Your task to perform on an android device: choose inbox layout in the gmail app Image 0: 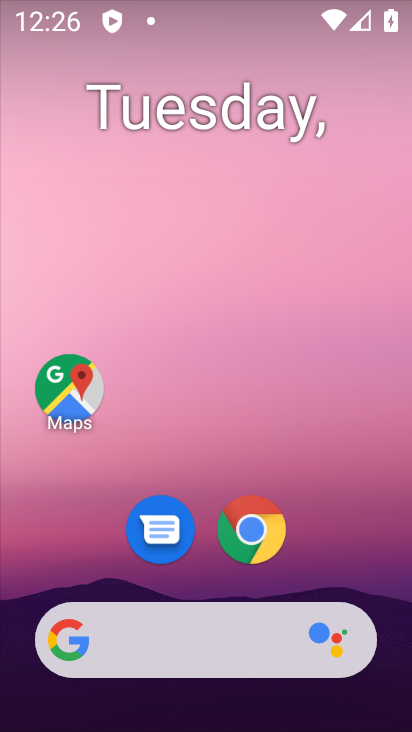
Step 0: drag from (335, 504) to (310, 303)
Your task to perform on an android device: choose inbox layout in the gmail app Image 1: 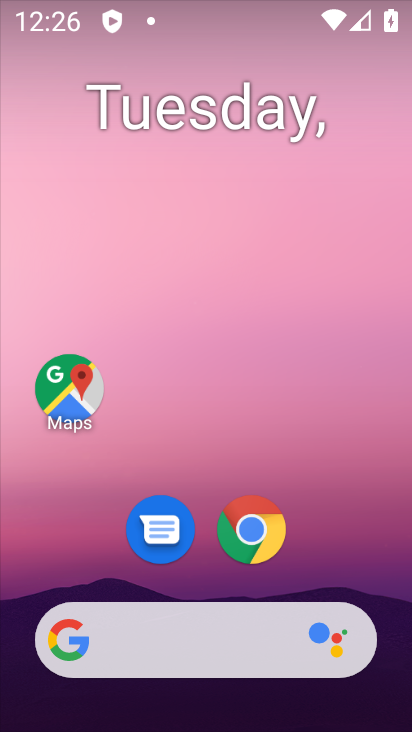
Step 1: drag from (321, 574) to (307, 158)
Your task to perform on an android device: choose inbox layout in the gmail app Image 2: 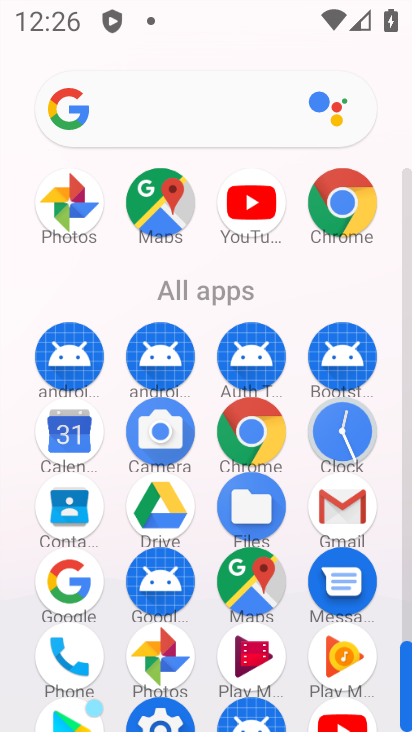
Step 2: click (332, 506)
Your task to perform on an android device: choose inbox layout in the gmail app Image 3: 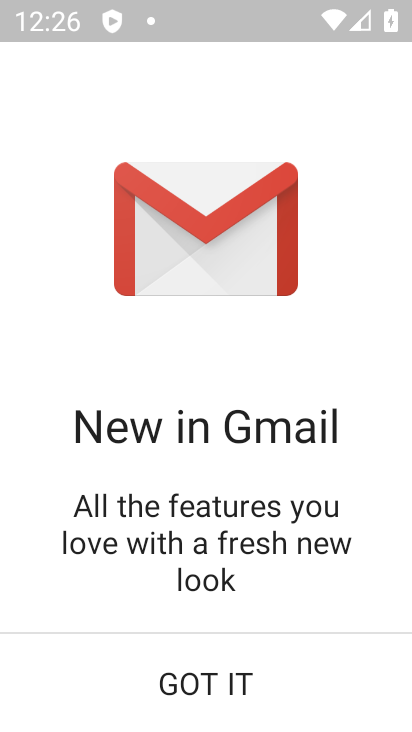
Step 3: click (197, 660)
Your task to perform on an android device: choose inbox layout in the gmail app Image 4: 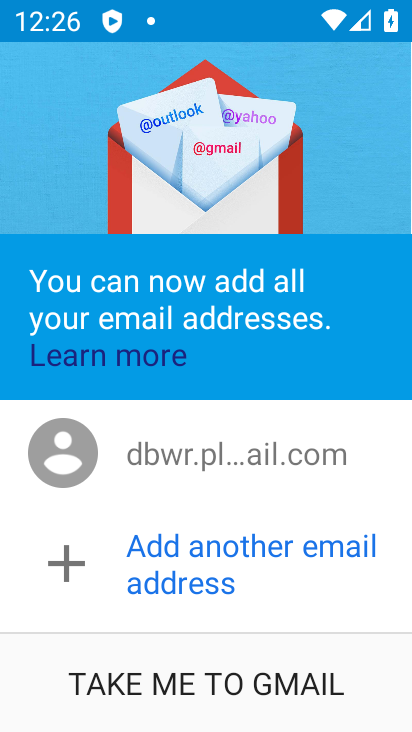
Step 4: click (203, 688)
Your task to perform on an android device: choose inbox layout in the gmail app Image 5: 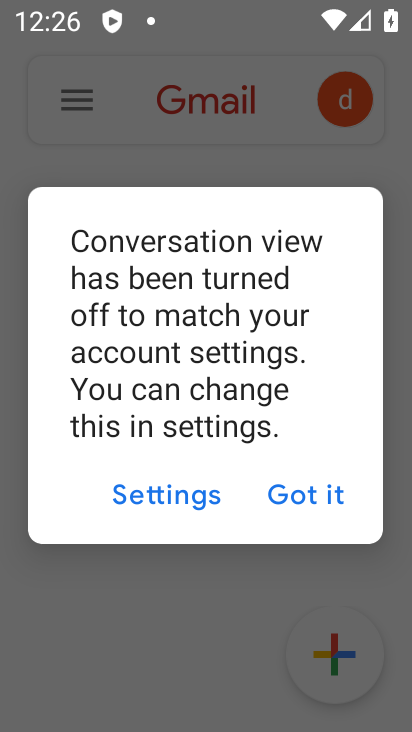
Step 5: click (309, 484)
Your task to perform on an android device: choose inbox layout in the gmail app Image 6: 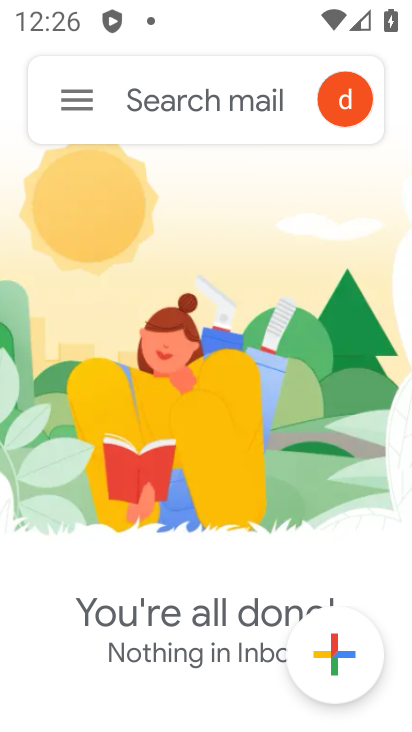
Step 6: click (60, 103)
Your task to perform on an android device: choose inbox layout in the gmail app Image 7: 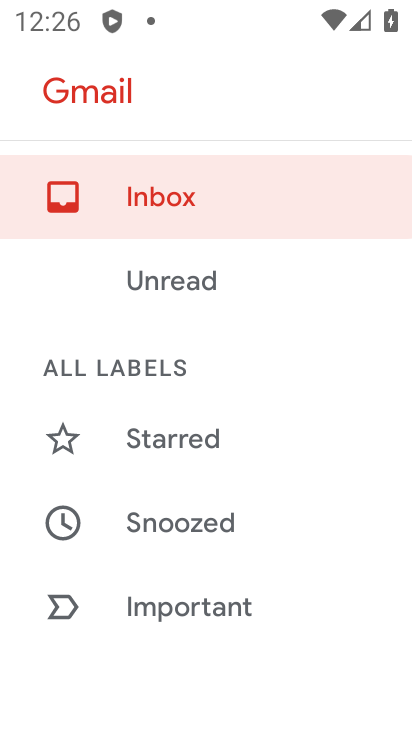
Step 7: drag from (181, 611) to (191, 219)
Your task to perform on an android device: choose inbox layout in the gmail app Image 8: 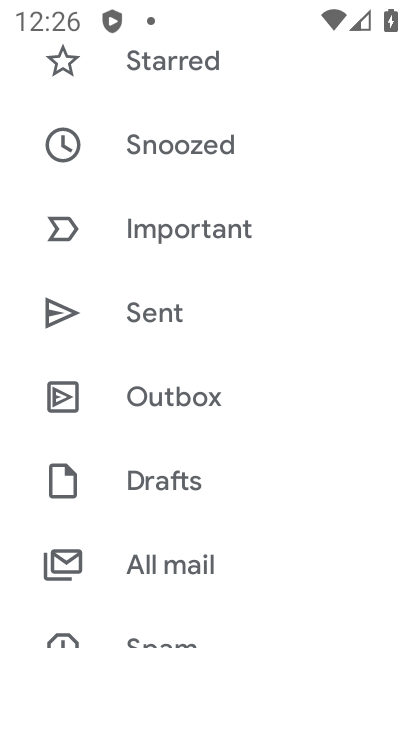
Step 8: drag from (222, 517) to (228, 229)
Your task to perform on an android device: choose inbox layout in the gmail app Image 9: 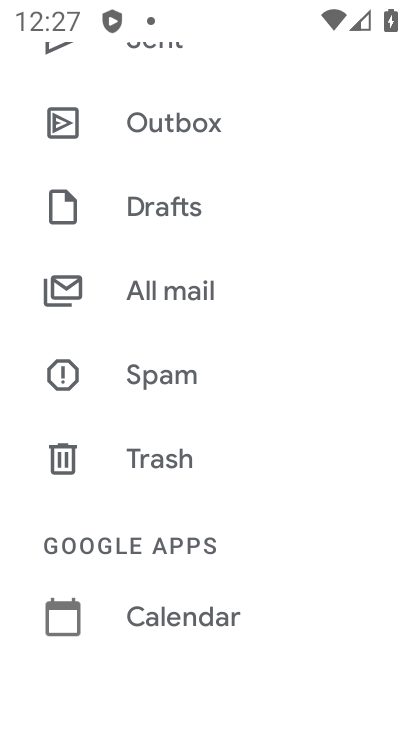
Step 9: drag from (181, 175) to (176, 555)
Your task to perform on an android device: choose inbox layout in the gmail app Image 10: 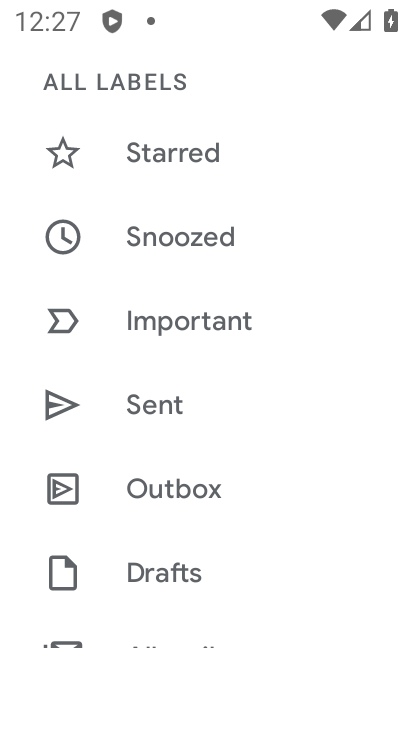
Step 10: drag from (160, 128) to (200, 310)
Your task to perform on an android device: choose inbox layout in the gmail app Image 11: 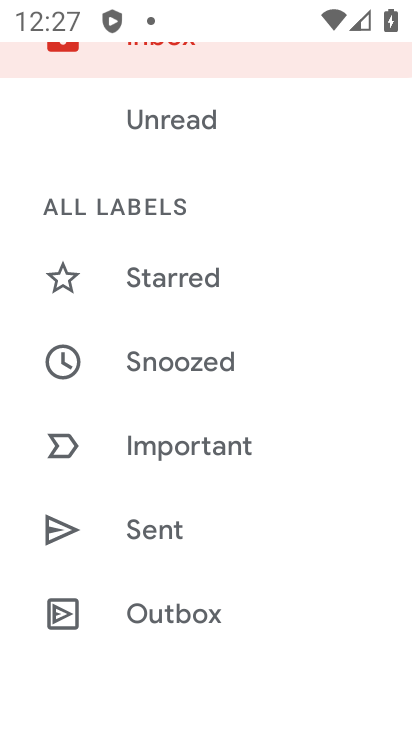
Step 11: drag from (228, 87) to (233, 287)
Your task to perform on an android device: choose inbox layout in the gmail app Image 12: 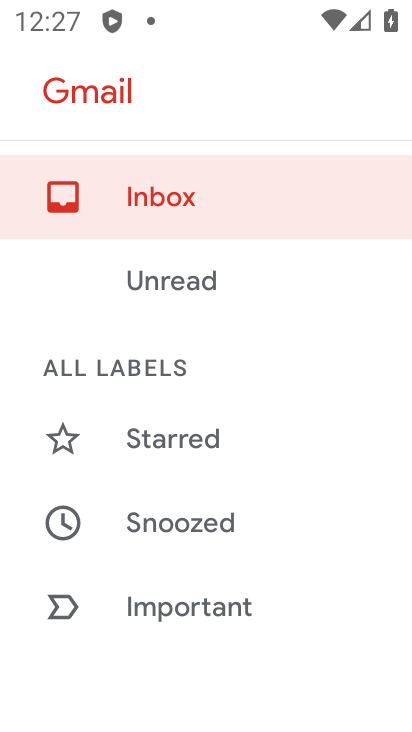
Step 12: click (239, 195)
Your task to perform on an android device: choose inbox layout in the gmail app Image 13: 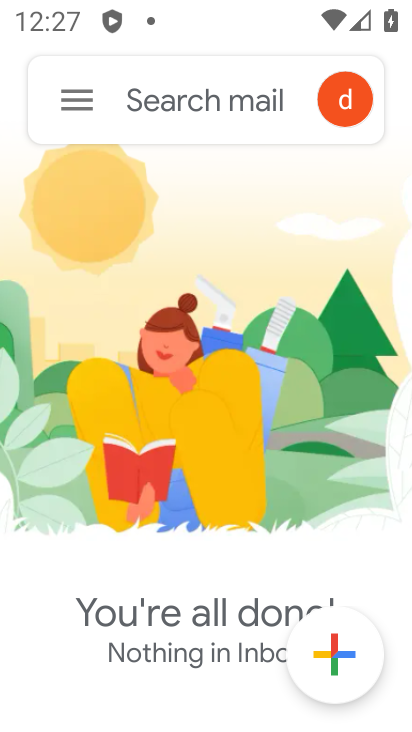
Step 13: click (56, 96)
Your task to perform on an android device: choose inbox layout in the gmail app Image 14: 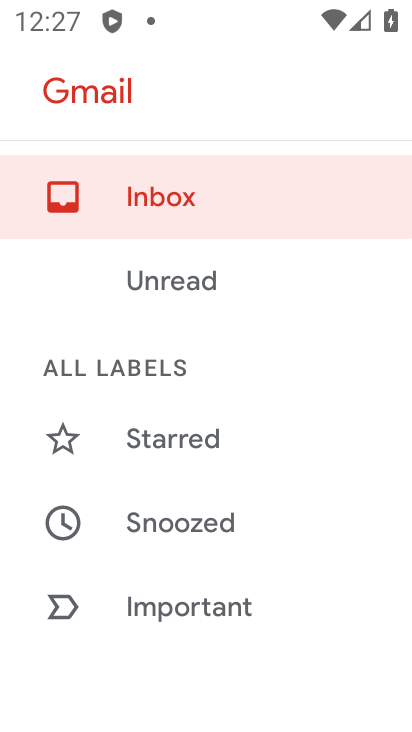
Step 14: drag from (209, 580) to (194, 207)
Your task to perform on an android device: choose inbox layout in the gmail app Image 15: 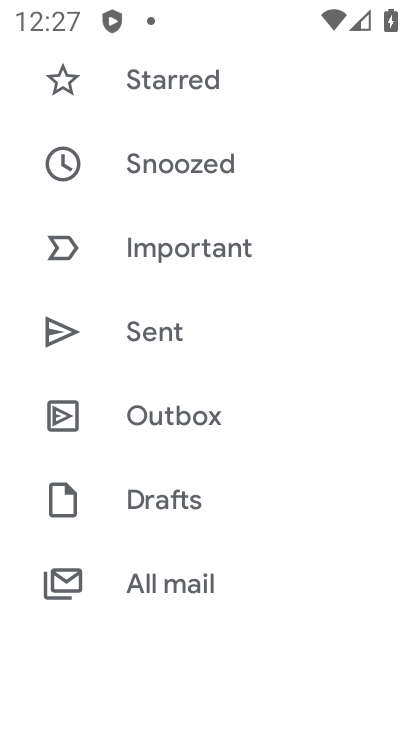
Step 15: drag from (190, 546) to (206, 285)
Your task to perform on an android device: choose inbox layout in the gmail app Image 16: 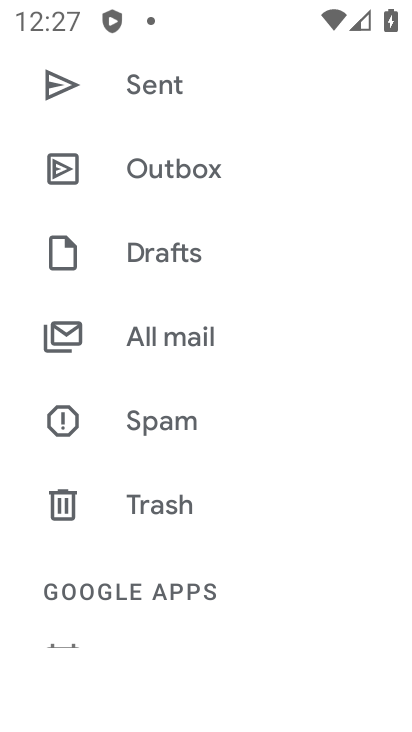
Step 16: drag from (222, 485) to (234, 158)
Your task to perform on an android device: choose inbox layout in the gmail app Image 17: 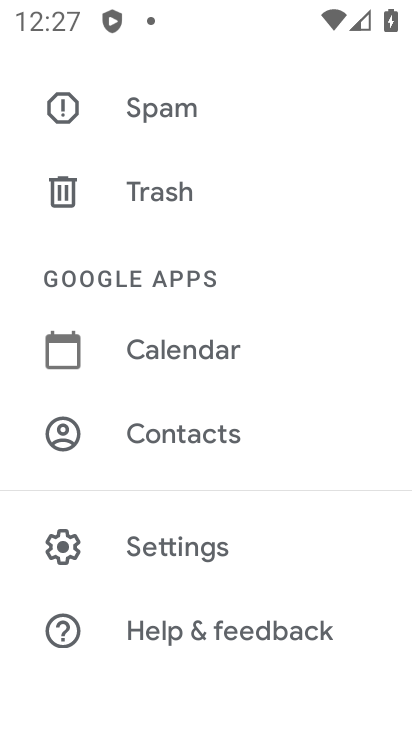
Step 17: click (188, 546)
Your task to perform on an android device: choose inbox layout in the gmail app Image 18: 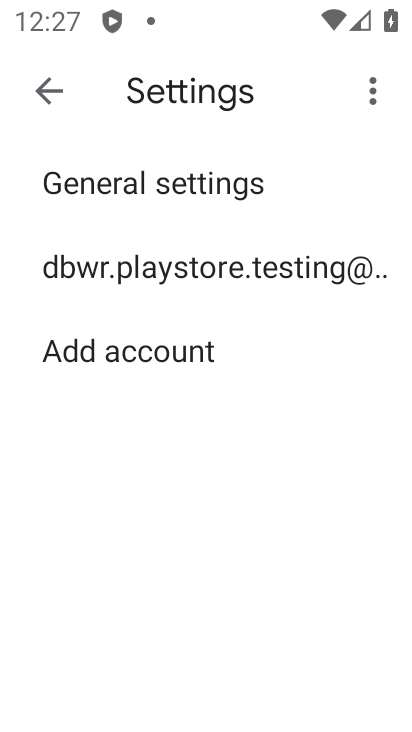
Step 18: click (184, 265)
Your task to perform on an android device: choose inbox layout in the gmail app Image 19: 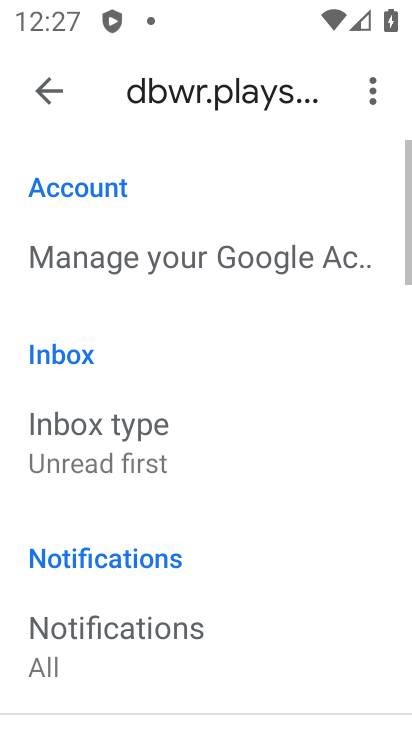
Step 19: click (133, 466)
Your task to perform on an android device: choose inbox layout in the gmail app Image 20: 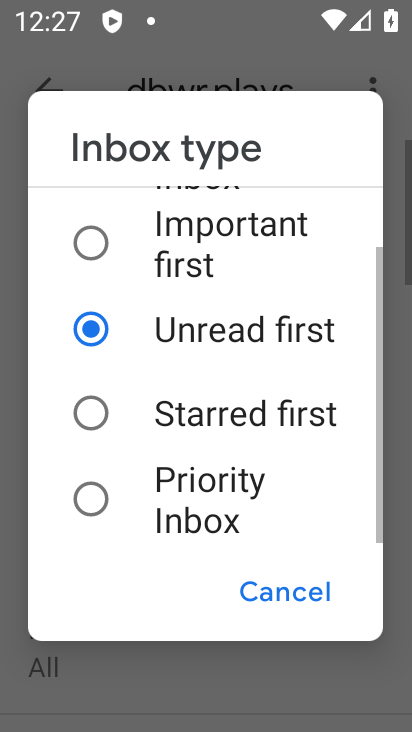
Step 20: click (135, 397)
Your task to perform on an android device: choose inbox layout in the gmail app Image 21: 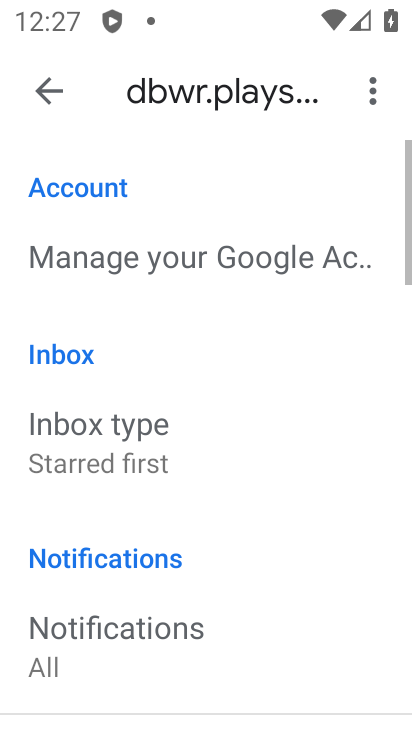
Step 21: task complete